Your task to perform on an android device: clear all cookies in the chrome app Image 0: 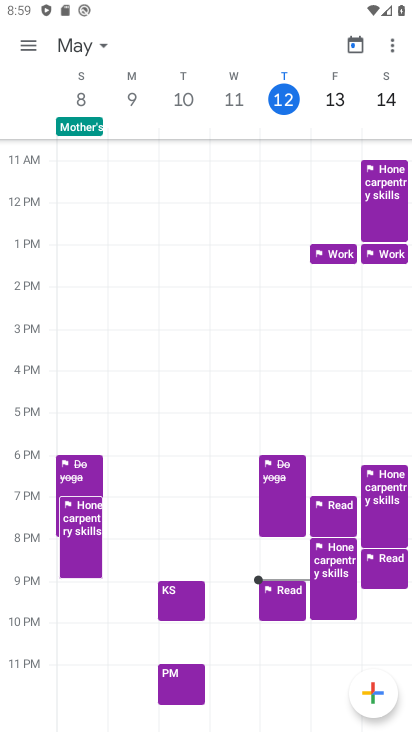
Step 0: press home button
Your task to perform on an android device: clear all cookies in the chrome app Image 1: 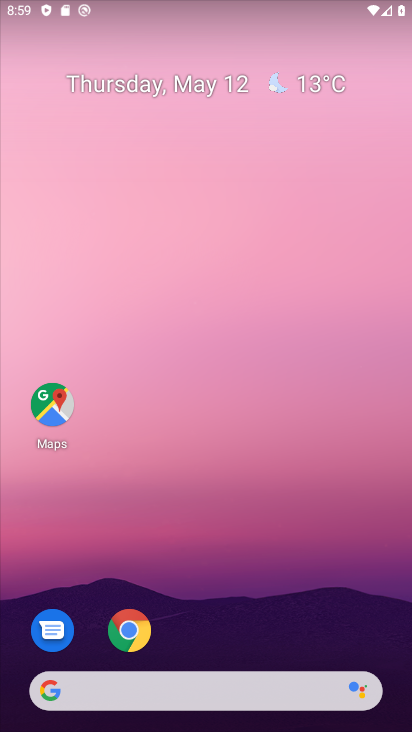
Step 1: click (141, 632)
Your task to perform on an android device: clear all cookies in the chrome app Image 2: 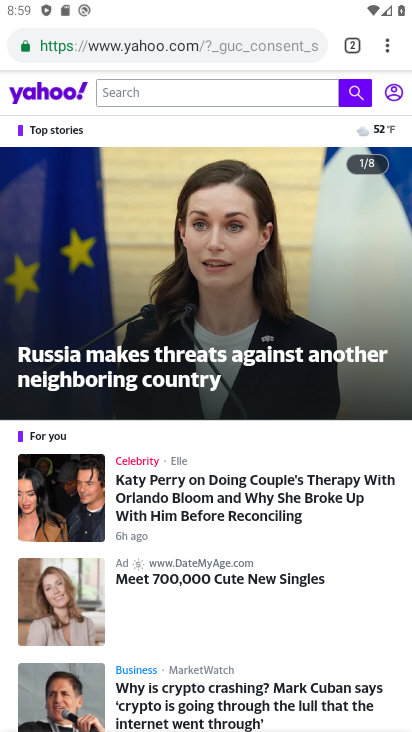
Step 2: drag from (393, 38) to (252, 310)
Your task to perform on an android device: clear all cookies in the chrome app Image 3: 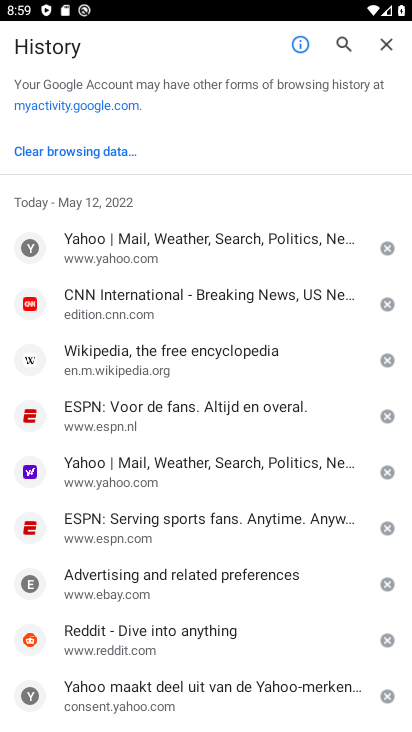
Step 3: click (98, 154)
Your task to perform on an android device: clear all cookies in the chrome app Image 4: 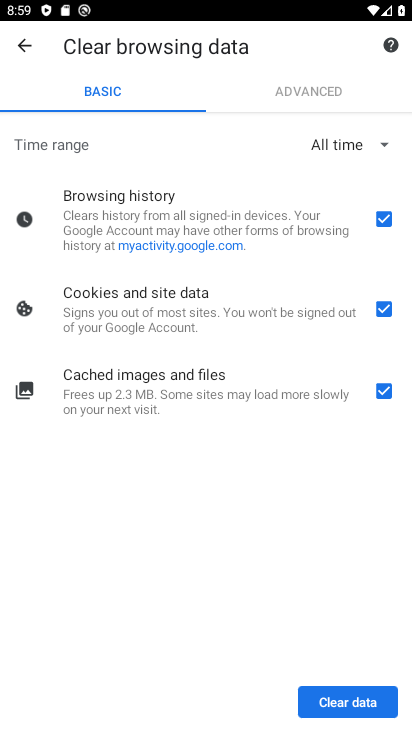
Step 4: click (342, 699)
Your task to perform on an android device: clear all cookies in the chrome app Image 5: 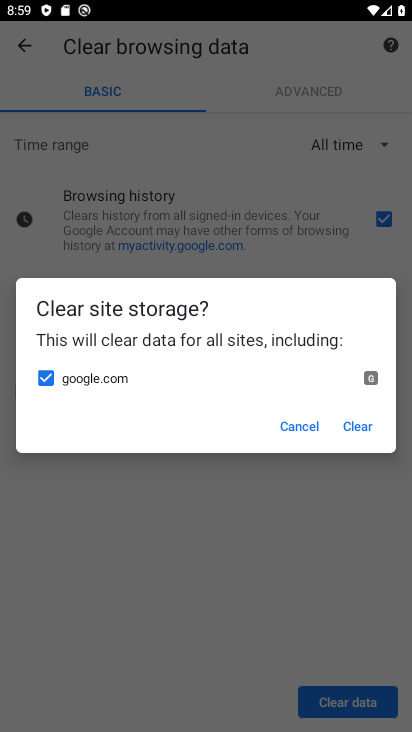
Step 5: click (357, 422)
Your task to perform on an android device: clear all cookies in the chrome app Image 6: 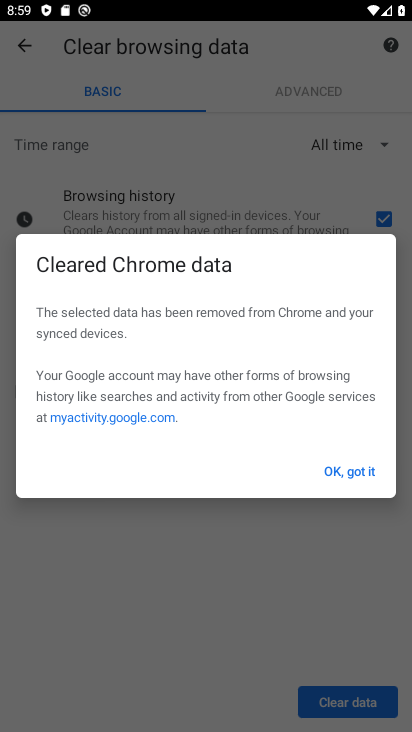
Step 6: click (347, 461)
Your task to perform on an android device: clear all cookies in the chrome app Image 7: 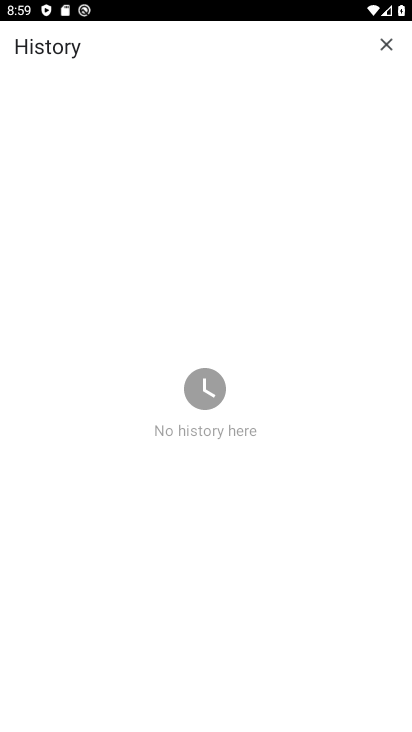
Step 7: task complete